Your task to perform on an android device: Search for vegetarian restaurants on Maps Image 0: 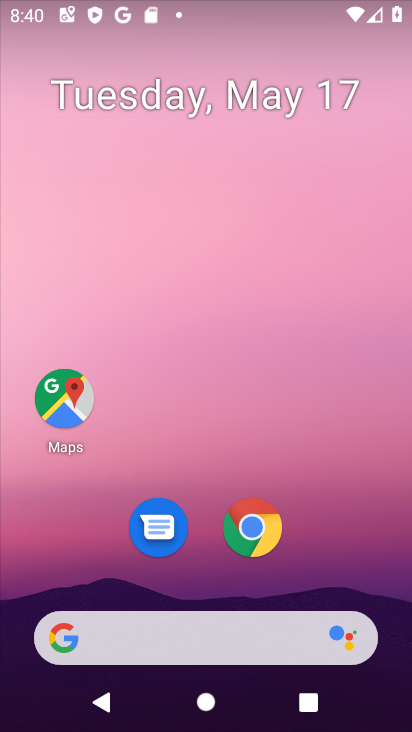
Step 0: drag from (212, 575) to (274, 12)
Your task to perform on an android device: Search for vegetarian restaurants on Maps Image 1: 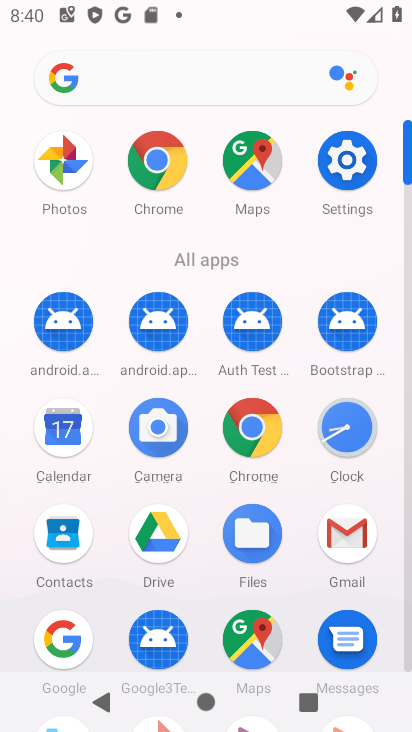
Step 1: click (267, 637)
Your task to perform on an android device: Search for vegetarian restaurants on Maps Image 2: 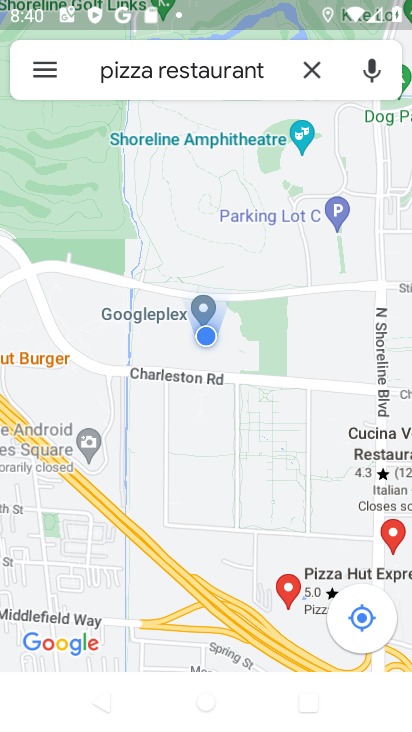
Step 2: click (298, 66)
Your task to perform on an android device: Search for vegetarian restaurants on Maps Image 3: 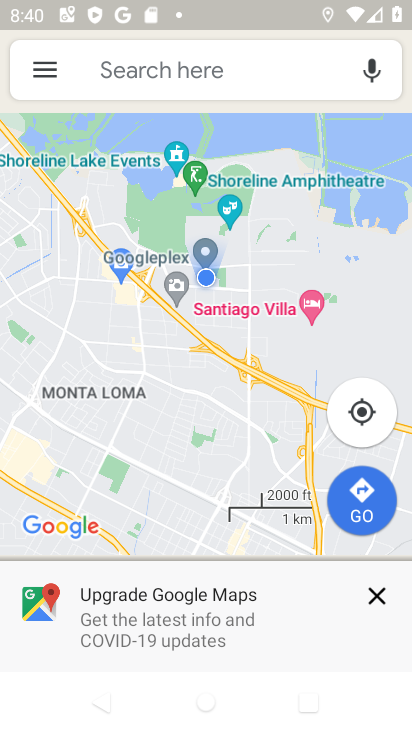
Step 3: click (298, 66)
Your task to perform on an android device: Search for vegetarian restaurants on Maps Image 4: 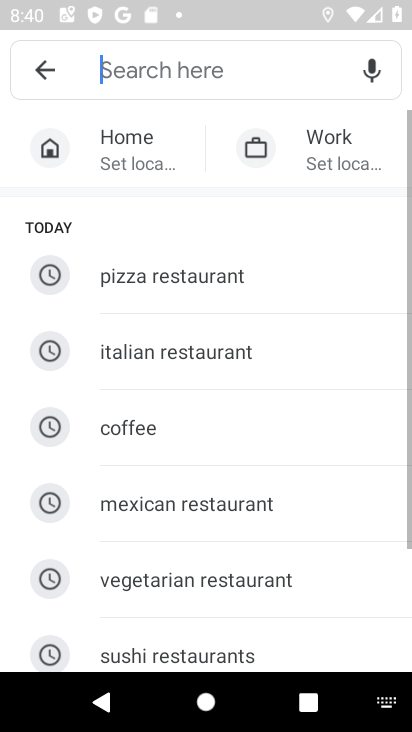
Step 4: click (215, 571)
Your task to perform on an android device: Search for vegetarian restaurants on Maps Image 5: 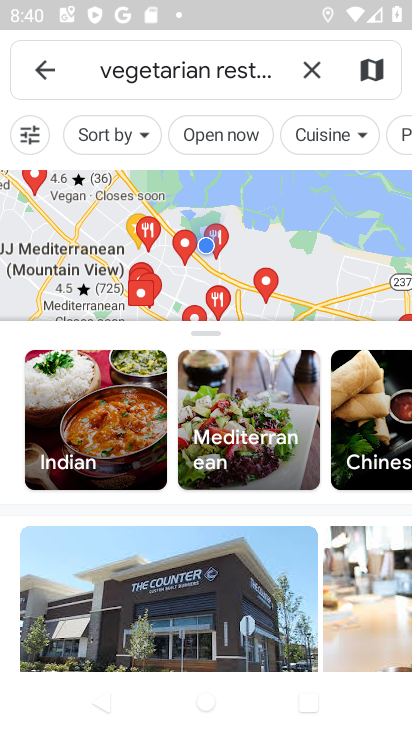
Step 5: task complete